Your task to perform on an android device: toggle translation in the chrome app Image 0: 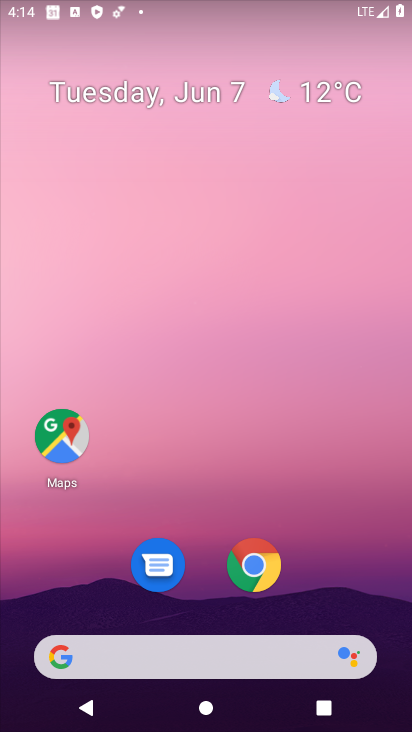
Step 0: drag from (311, 637) to (284, 71)
Your task to perform on an android device: toggle translation in the chrome app Image 1: 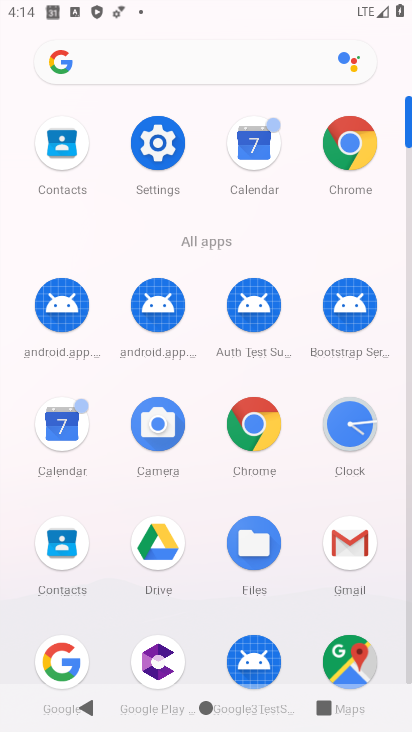
Step 1: click (259, 439)
Your task to perform on an android device: toggle translation in the chrome app Image 2: 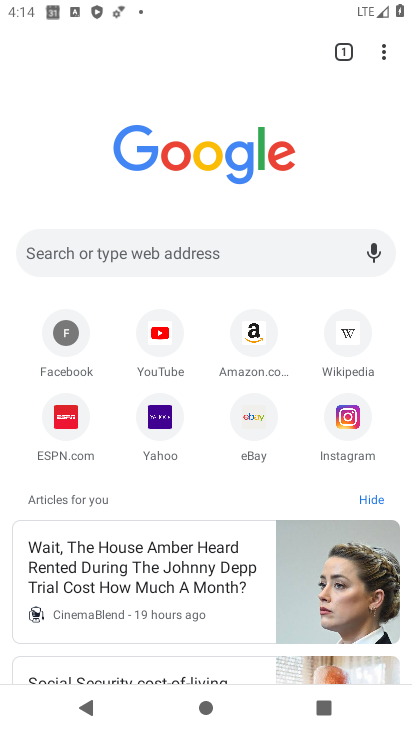
Step 2: click (386, 46)
Your task to perform on an android device: toggle translation in the chrome app Image 3: 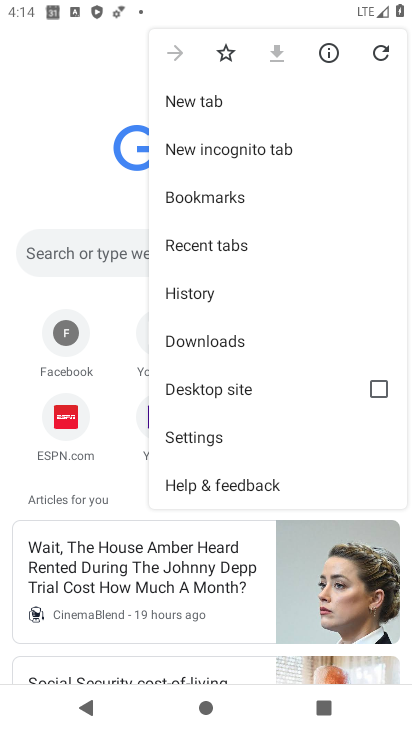
Step 3: click (227, 429)
Your task to perform on an android device: toggle translation in the chrome app Image 4: 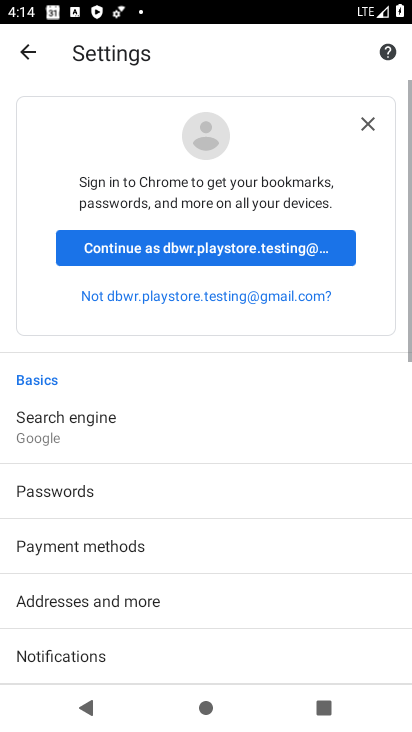
Step 4: drag from (157, 643) to (204, 78)
Your task to perform on an android device: toggle translation in the chrome app Image 5: 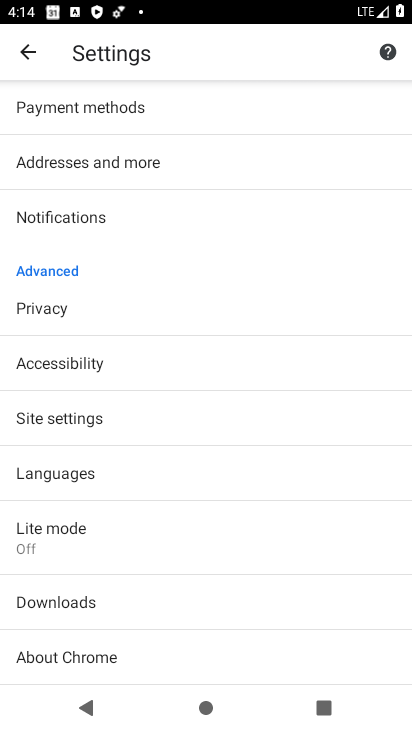
Step 5: click (83, 473)
Your task to perform on an android device: toggle translation in the chrome app Image 6: 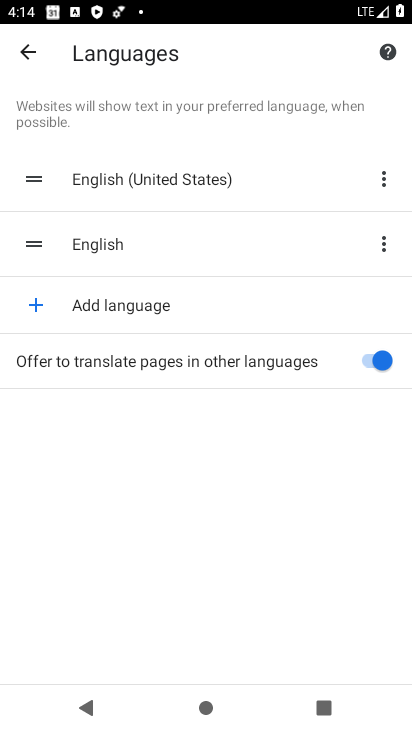
Step 6: click (371, 355)
Your task to perform on an android device: toggle translation in the chrome app Image 7: 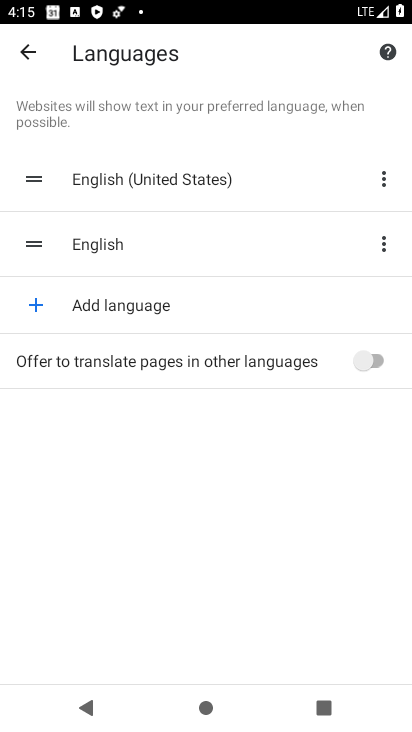
Step 7: task complete